Your task to perform on an android device: Open Youtube and go to "Your channel" Image 0: 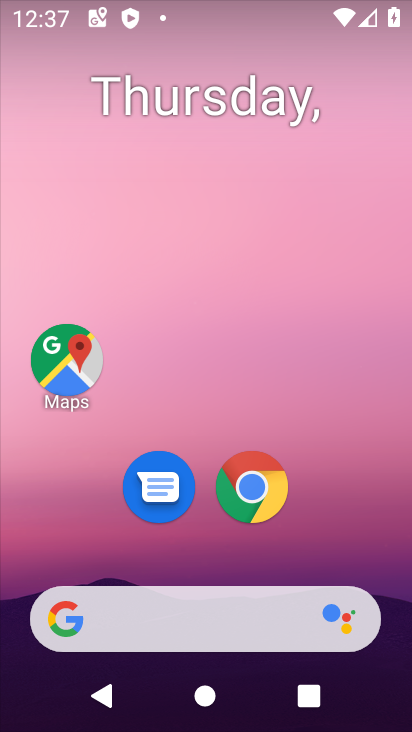
Step 0: drag from (348, 514) to (332, 111)
Your task to perform on an android device: Open Youtube and go to "Your channel" Image 1: 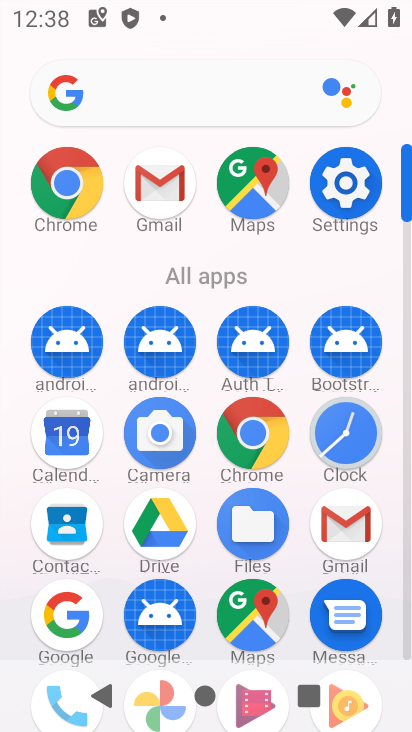
Step 1: click (407, 651)
Your task to perform on an android device: Open Youtube and go to "Your channel" Image 2: 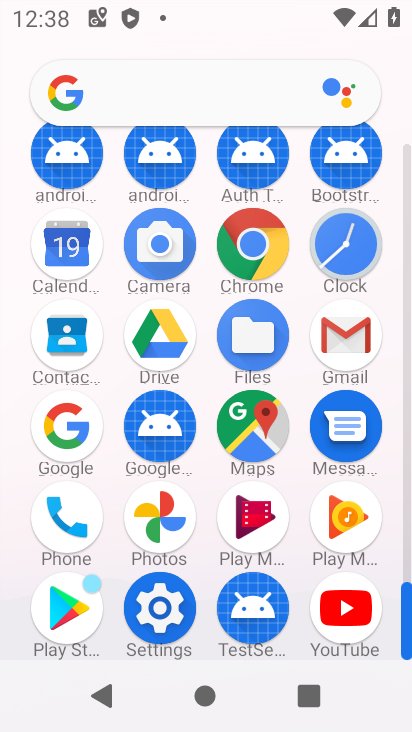
Step 2: click (343, 611)
Your task to perform on an android device: Open Youtube and go to "Your channel" Image 3: 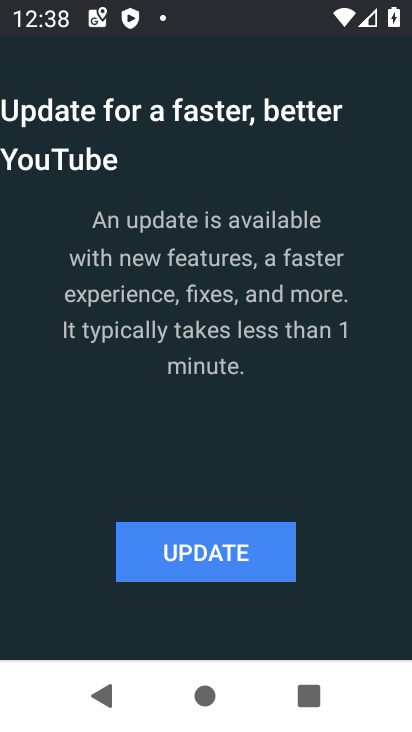
Step 3: click (264, 555)
Your task to perform on an android device: Open Youtube and go to "Your channel" Image 4: 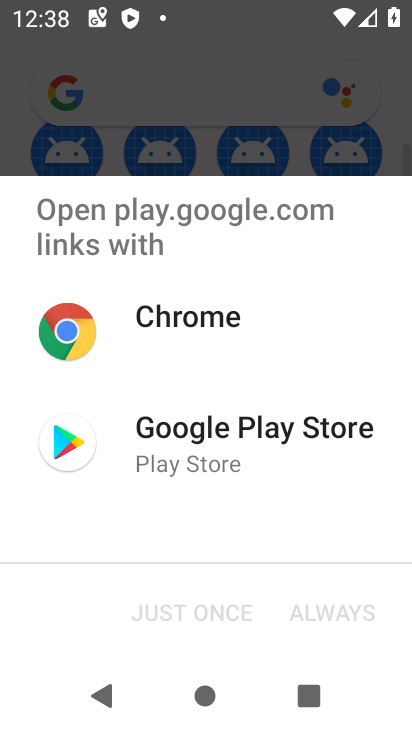
Step 4: click (288, 404)
Your task to perform on an android device: Open Youtube and go to "Your channel" Image 5: 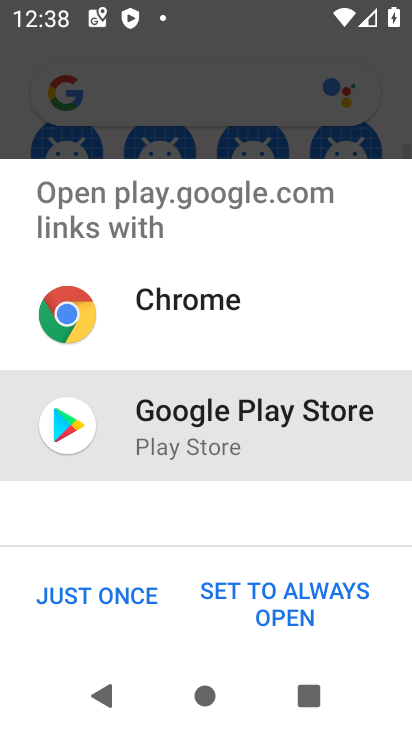
Step 5: click (111, 602)
Your task to perform on an android device: Open Youtube and go to "Your channel" Image 6: 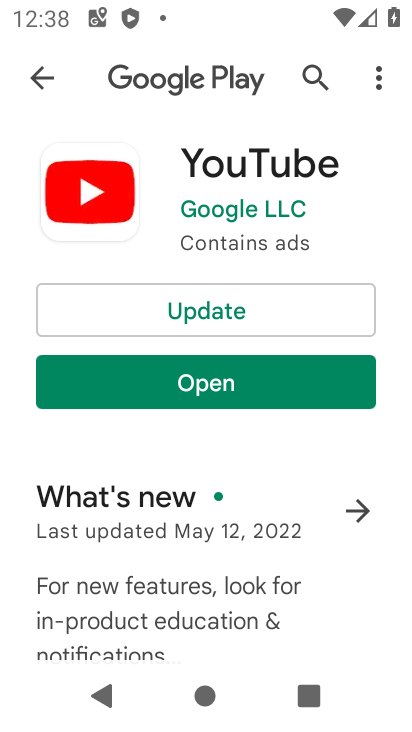
Step 6: click (201, 319)
Your task to perform on an android device: Open Youtube and go to "Your channel" Image 7: 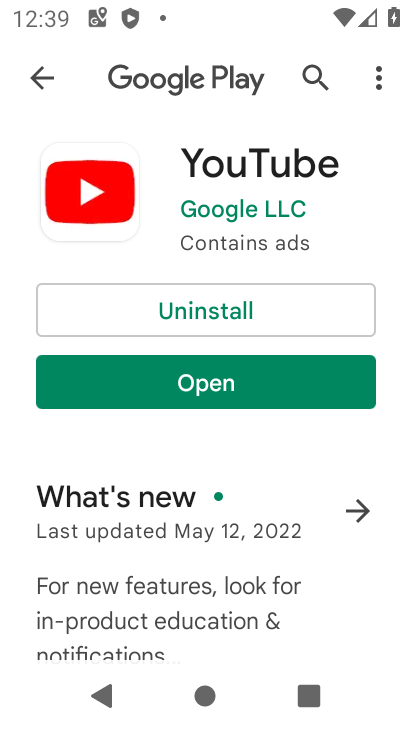
Step 7: click (231, 376)
Your task to perform on an android device: Open Youtube and go to "Your channel" Image 8: 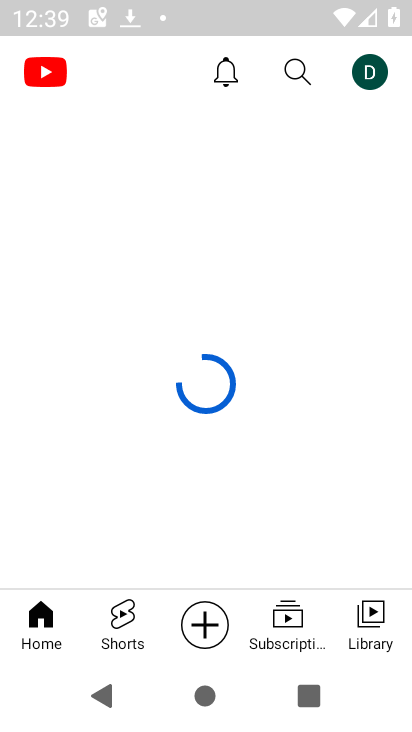
Step 8: click (382, 62)
Your task to perform on an android device: Open Youtube and go to "Your channel" Image 9: 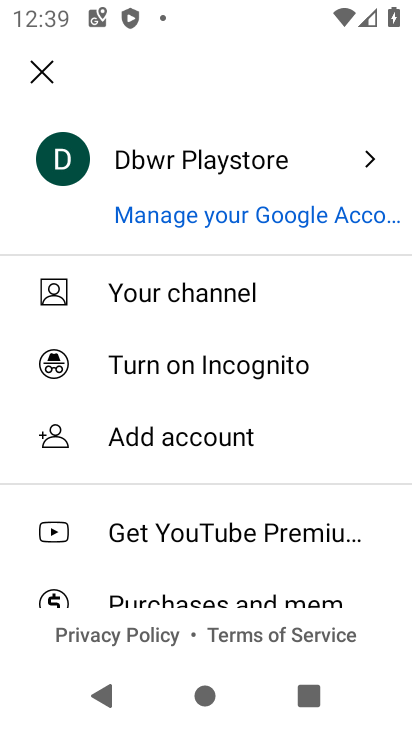
Step 9: click (306, 299)
Your task to perform on an android device: Open Youtube and go to "Your channel" Image 10: 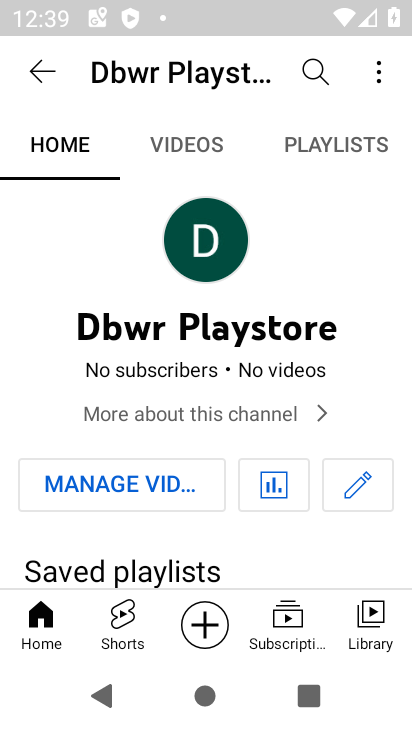
Step 10: task complete